Your task to perform on an android device: Open wifi settings Image 0: 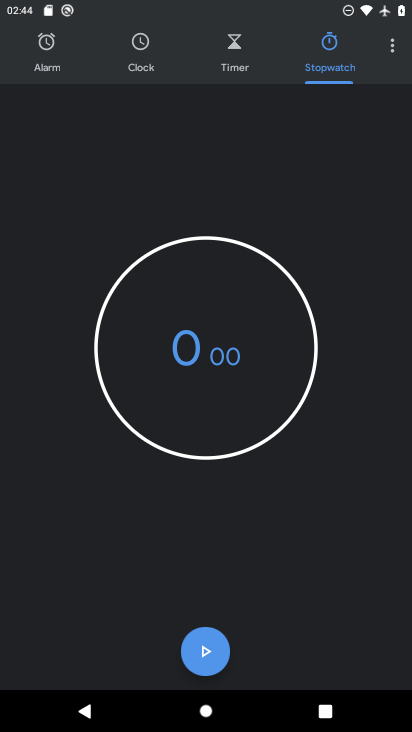
Step 0: press home button
Your task to perform on an android device: Open wifi settings Image 1: 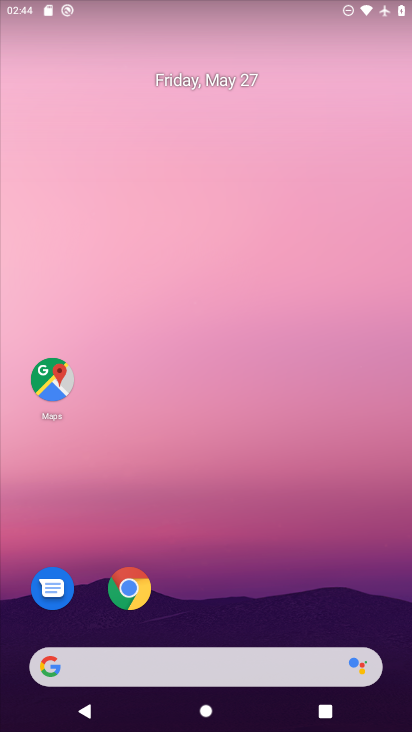
Step 1: drag from (380, 612) to (331, 99)
Your task to perform on an android device: Open wifi settings Image 2: 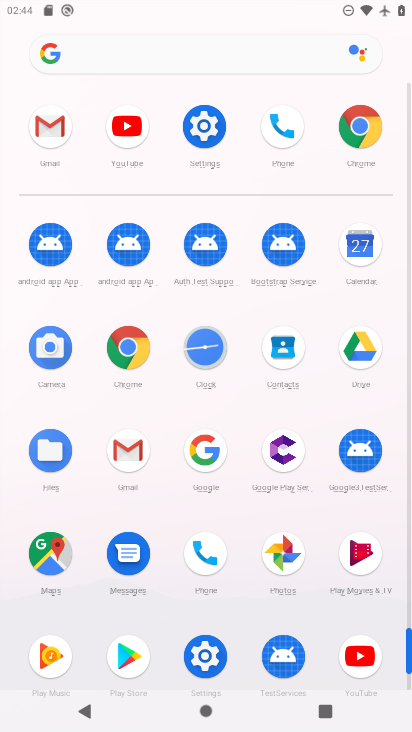
Step 2: click (202, 655)
Your task to perform on an android device: Open wifi settings Image 3: 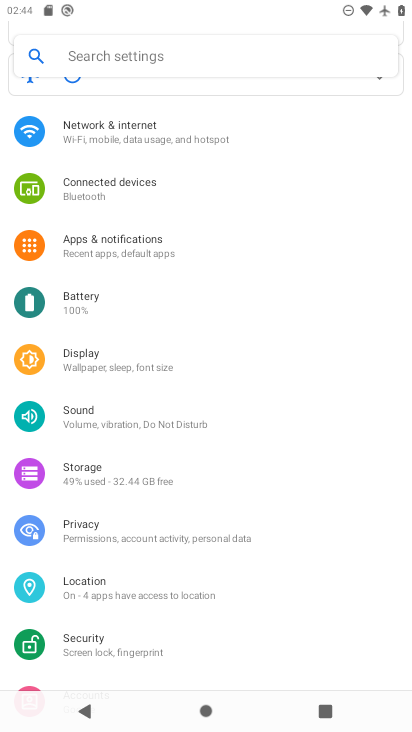
Step 3: click (100, 128)
Your task to perform on an android device: Open wifi settings Image 4: 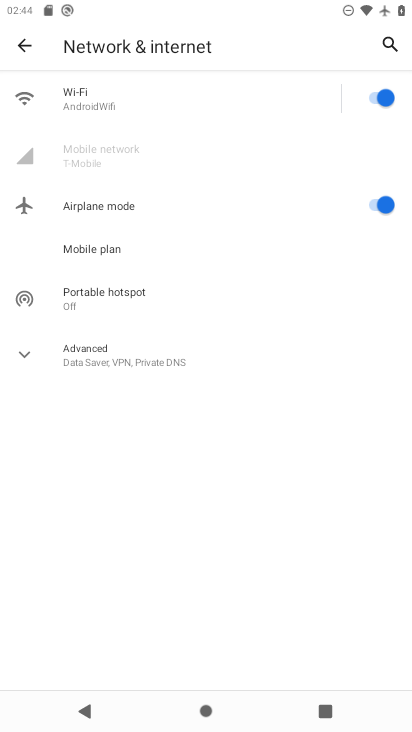
Step 4: click (77, 90)
Your task to perform on an android device: Open wifi settings Image 5: 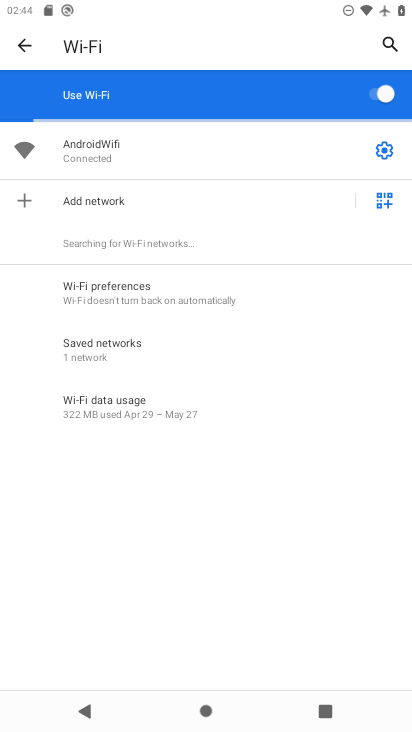
Step 5: click (383, 147)
Your task to perform on an android device: Open wifi settings Image 6: 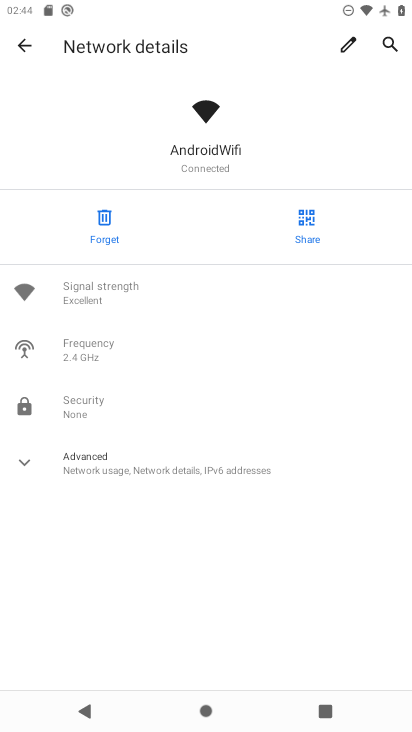
Step 6: click (24, 456)
Your task to perform on an android device: Open wifi settings Image 7: 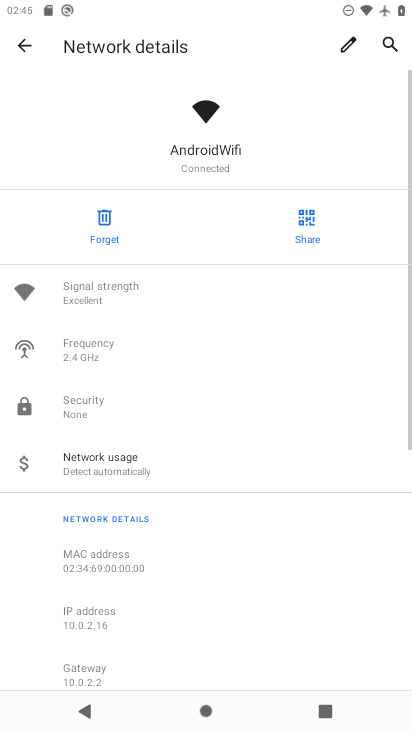
Step 7: task complete